Your task to perform on an android device: set an alarm Image 0: 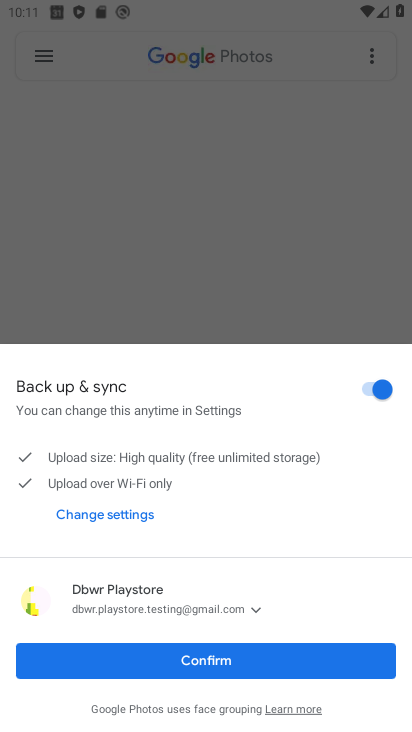
Step 0: press home button
Your task to perform on an android device: set an alarm Image 1: 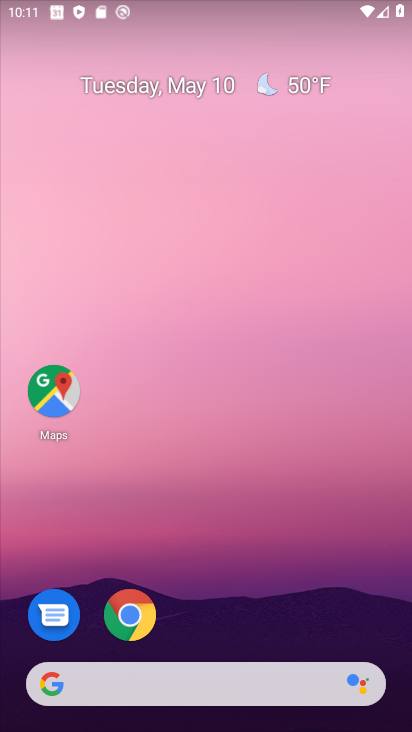
Step 1: drag from (204, 638) to (285, 0)
Your task to perform on an android device: set an alarm Image 2: 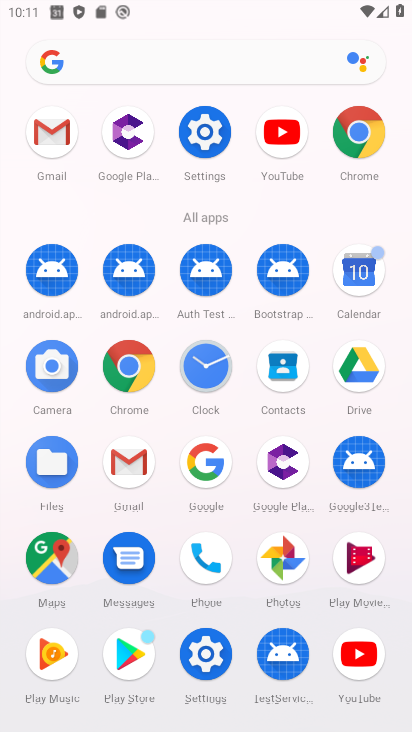
Step 2: click (205, 357)
Your task to perform on an android device: set an alarm Image 3: 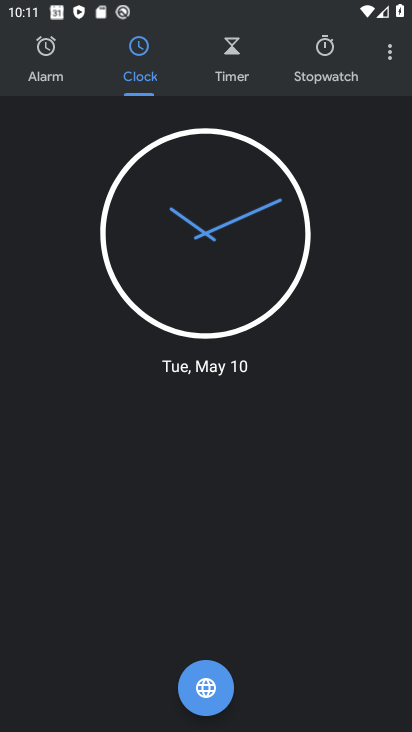
Step 3: click (50, 58)
Your task to perform on an android device: set an alarm Image 4: 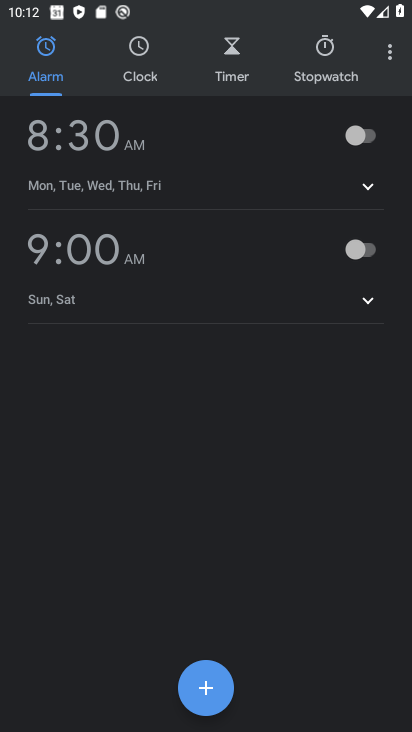
Step 4: click (360, 134)
Your task to perform on an android device: set an alarm Image 5: 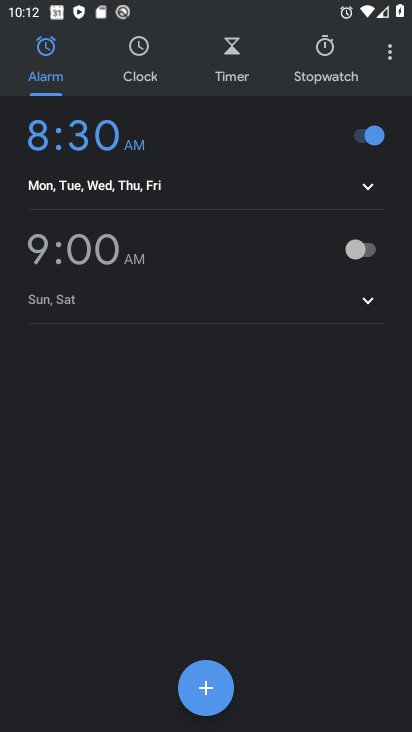
Step 5: task complete